Your task to perform on an android device: change your default location settings in chrome Image 0: 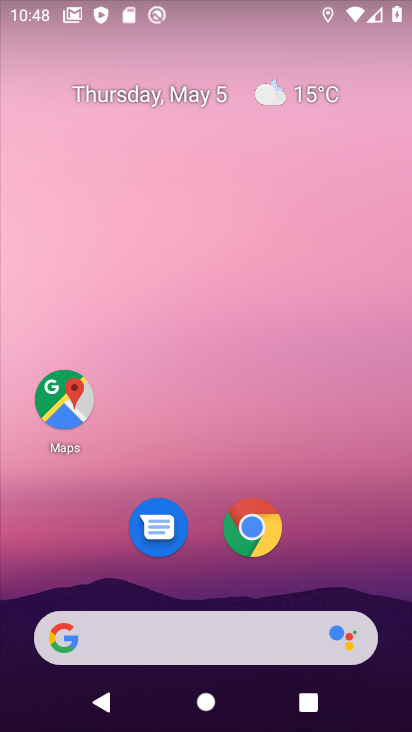
Step 0: drag from (202, 566) to (243, 2)
Your task to perform on an android device: change your default location settings in chrome Image 1: 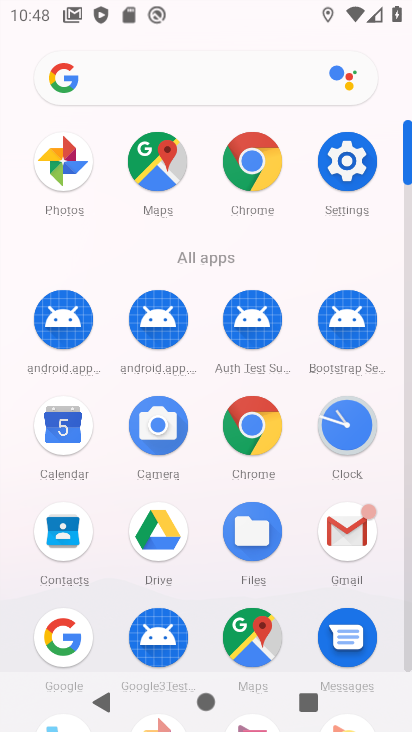
Step 1: click (269, 188)
Your task to perform on an android device: change your default location settings in chrome Image 2: 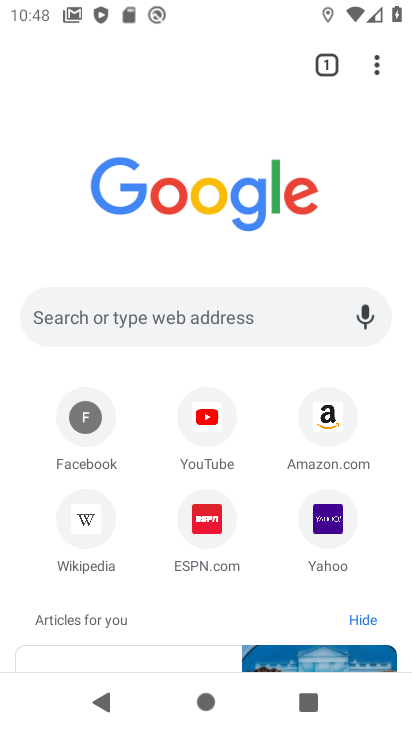
Step 2: click (378, 82)
Your task to perform on an android device: change your default location settings in chrome Image 3: 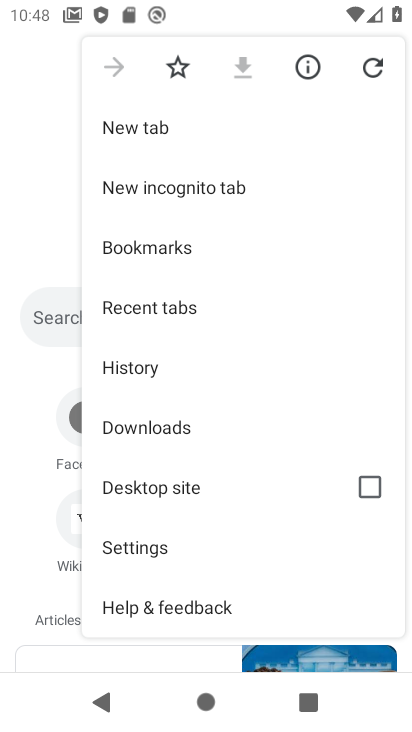
Step 3: click (163, 549)
Your task to perform on an android device: change your default location settings in chrome Image 4: 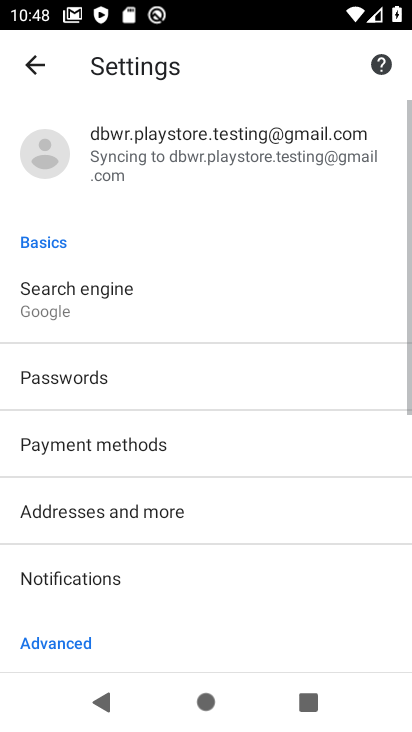
Step 4: drag from (83, 586) to (149, 255)
Your task to perform on an android device: change your default location settings in chrome Image 5: 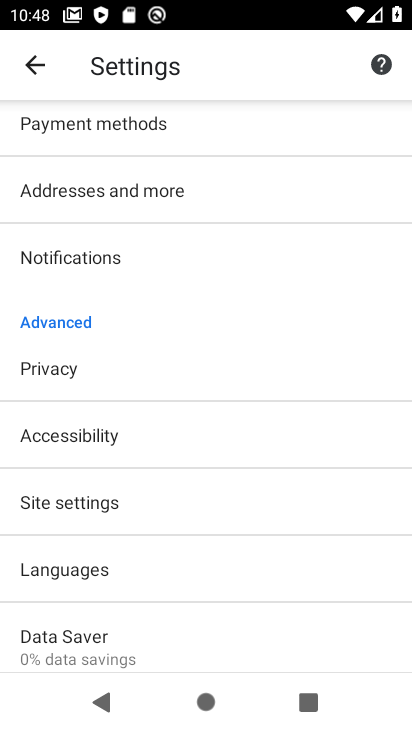
Step 5: click (79, 510)
Your task to perform on an android device: change your default location settings in chrome Image 6: 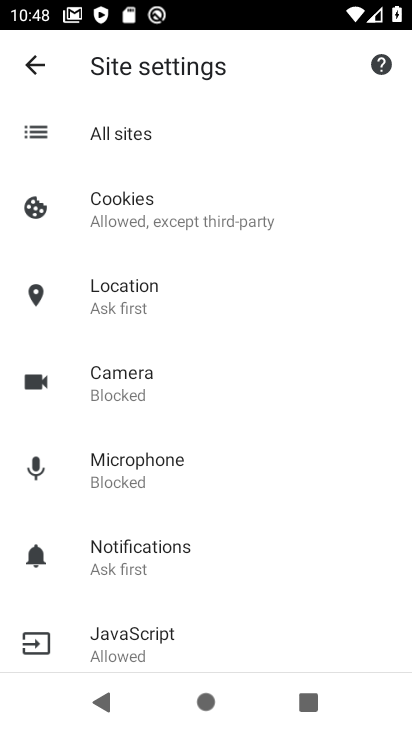
Step 6: click (134, 310)
Your task to perform on an android device: change your default location settings in chrome Image 7: 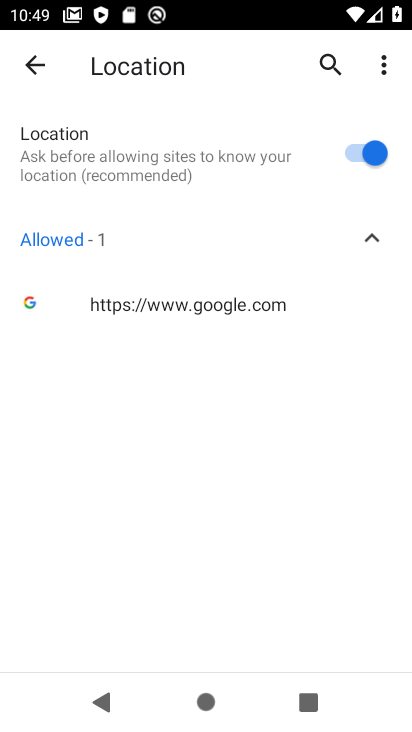
Step 7: click (360, 156)
Your task to perform on an android device: change your default location settings in chrome Image 8: 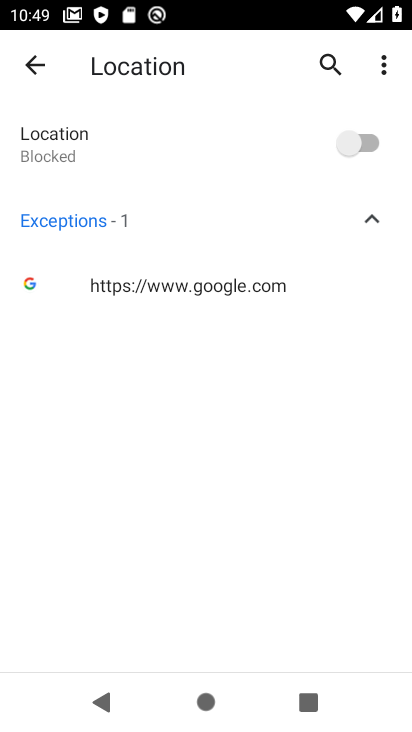
Step 8: task complete